Your task to perform on an android device: open chrome and create a bookmark for the current page Image 0: 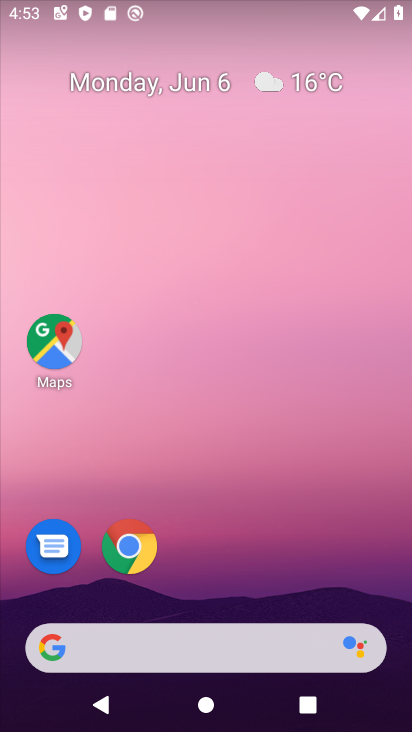
Step 0: click (141, 545)
Your task to perform on an android device: open chrome and create a bookmark for the current page Image 1: 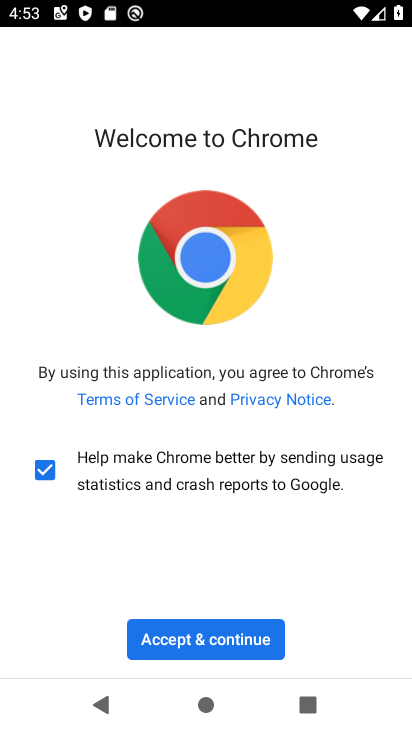
Step 1: click (203, 643)
Your task to perform on an android device: open chrome and create a bookmark for the current page Image 2: 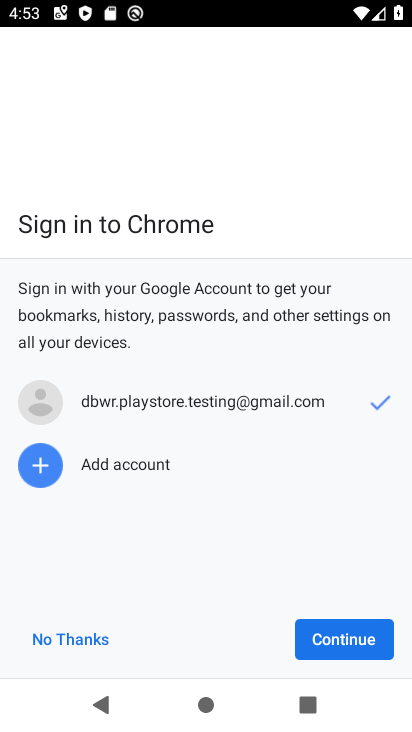
Step 2: click (296, 638)
Your task to perform on an android device: open chrome and create a bookmark for the current page Image 3: 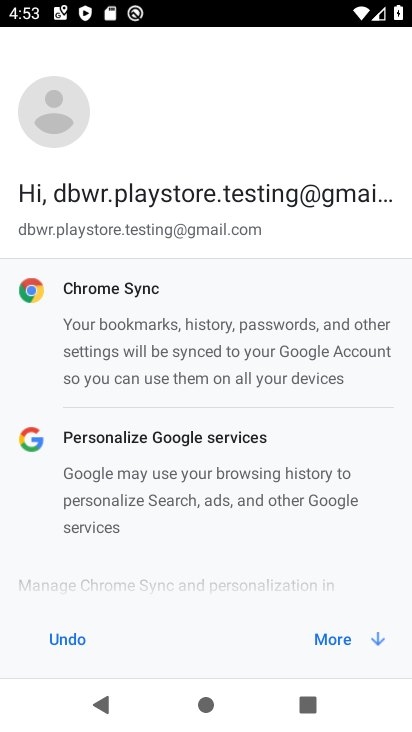
Step 3: click (338, 642)
Your task to perform on an android device: open chrome and create a bookmark for the current page Image 4: 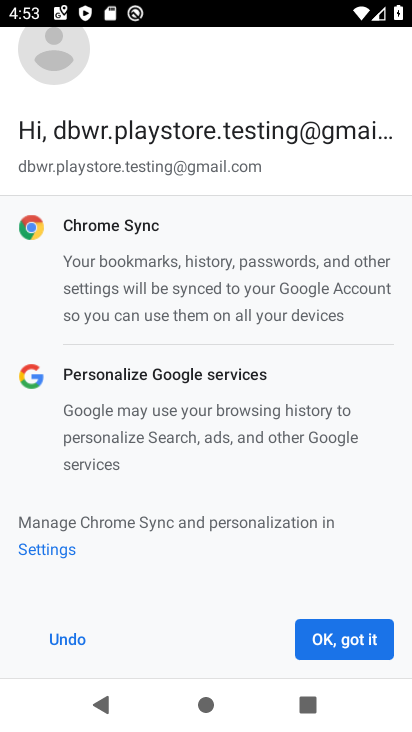
Step 4: click (337, 640)
Your task to perform on an android device: open chrome and create a bookmark for the current page Image 5: 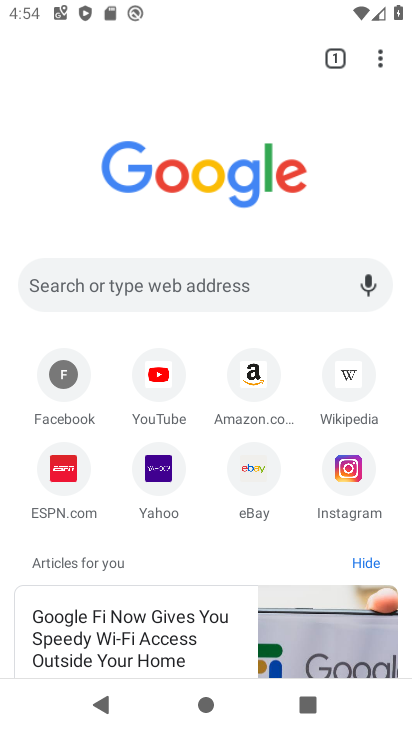
Step 5: click (371, 59)
Your task to perform on an android device: open chrome and create a bookmark for the current page Image 6: 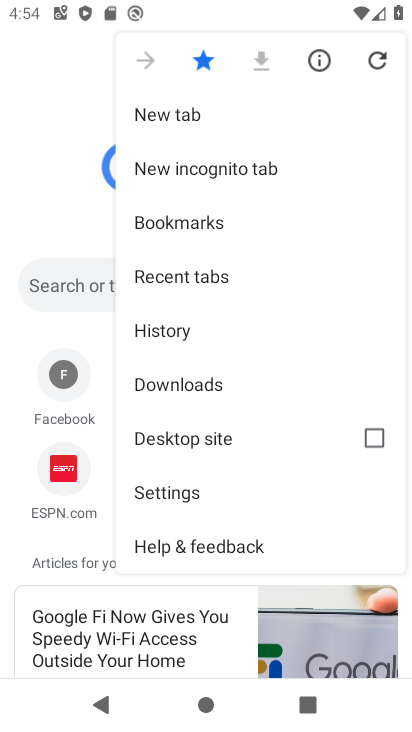
Step 6: task complete